Your task to perform on an android device: Open accessibility settings Image 0: 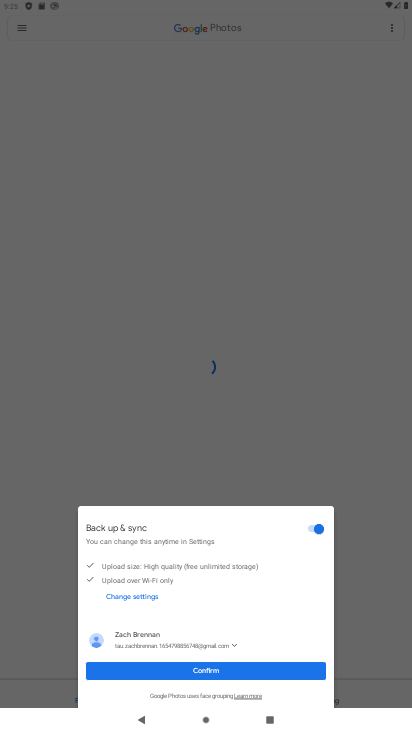
Step 0: press home button
Your task to perform on an android device: Open accessibility settings Image 1: 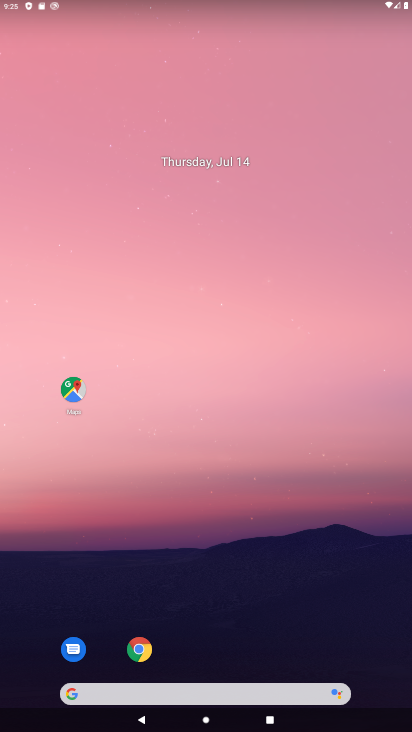
Step 1: drag from (192, 645) to (224, 165)
Your task to perform on an android device: Open accessibility settings Image 2: 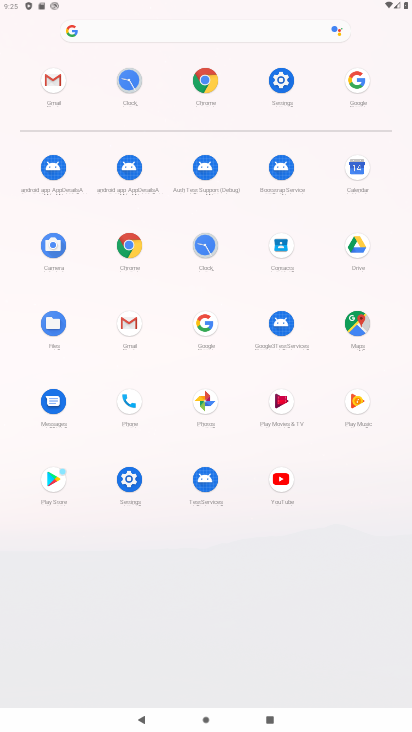
Step 2: click (282, 97)
Your task to perform on an android device: Open accessibility settings Image 3: 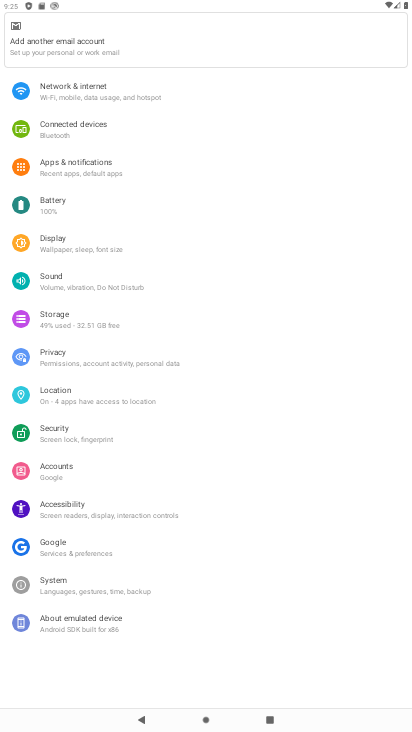
Step 3: click (64, 500)
Your task to perform on an android device: Open accessibility settings Image 4: 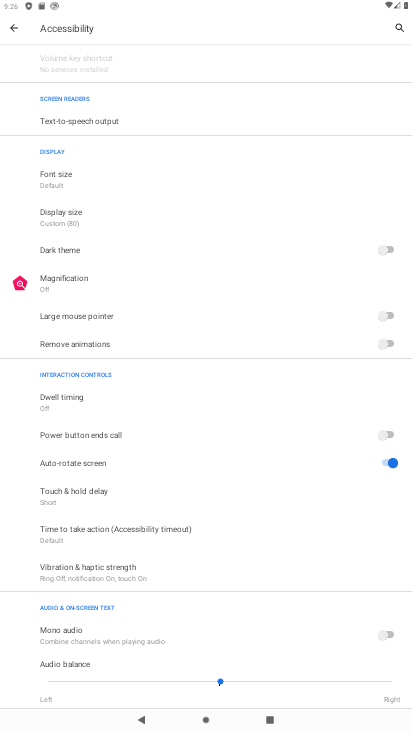
Step 4: task complete